Your task to perform on an android device: add a label to a message in the gmail app Image 0: 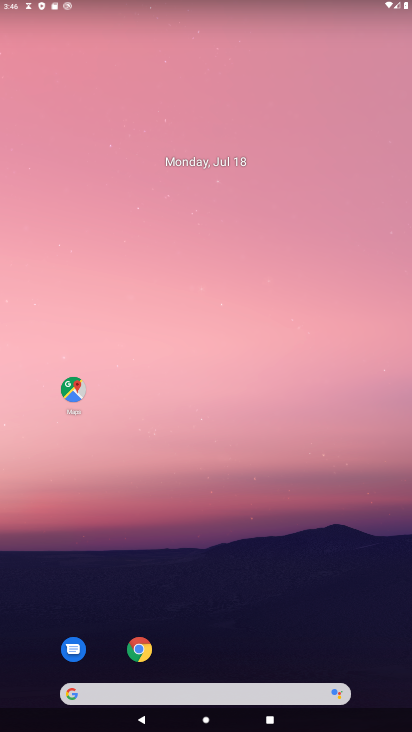
Step 0: press home button
Your task to perform on an android device: add a label to a message in the gmail app Image 1: 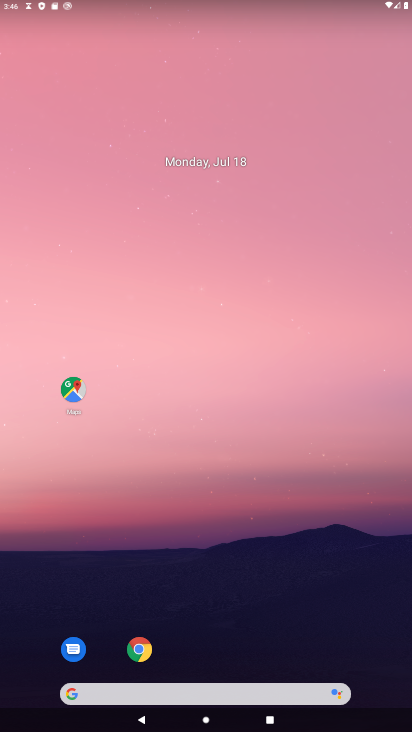
Step 1: drag from (276, 519) to (274, 109)
Your task to perform on an android device: add a label to a message in the gmail app Image 2: 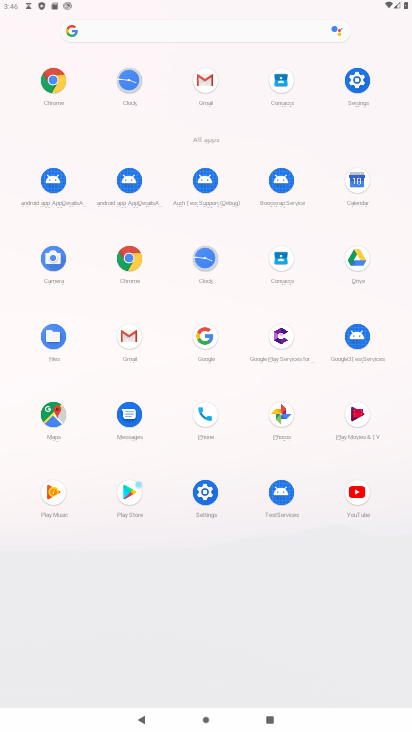
Step 2: click (216, 82)
Your task to perform on an android device: add a label to a message in the gmail app Image 3: 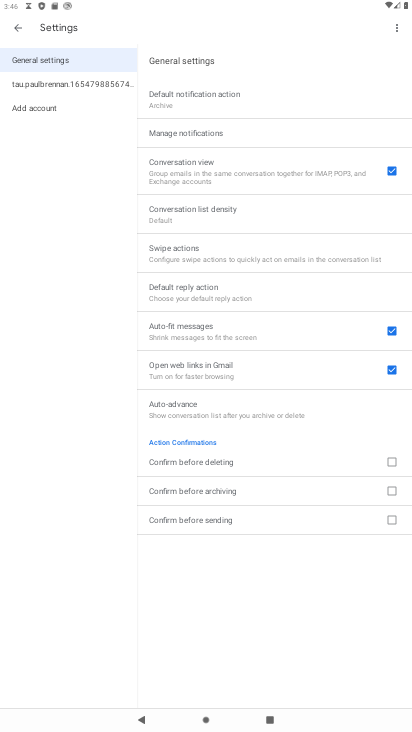
Step 3: click (17, 27)
Your task to perform on an android device: add a label to a message in the gmail app Image 4: 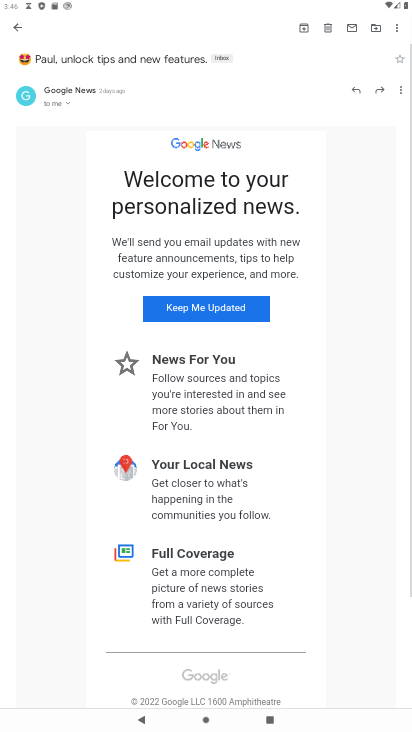
Step 4: click (21, 30)
Your task to perform on an android device: add a label to a message in the gmail app Image 5: 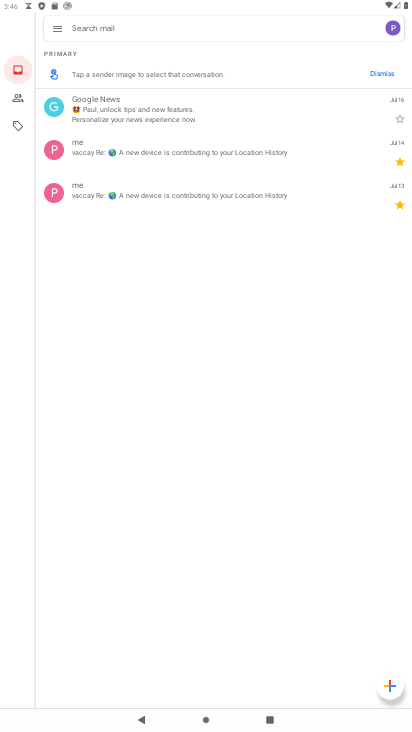
Step 5: click (51, 26)
Your task to perform on an android device: add a label to a message in the gmail app Image 6: 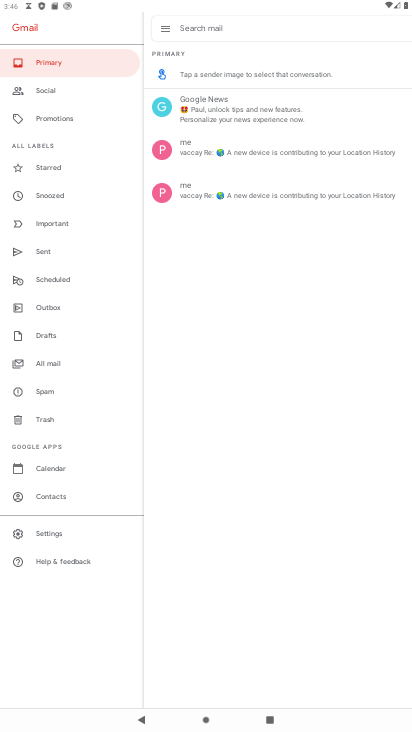
Step 6: click (46, 359)
Your task to perform on an android device: add a label to a message in the gmail app Image 7: 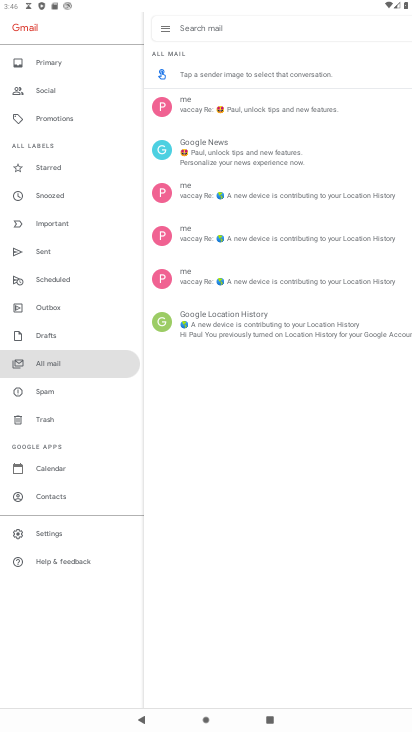
Step 7: click (252, 101)
Your task to perform on an android device: add a label to a message in the gmail app Image 8: 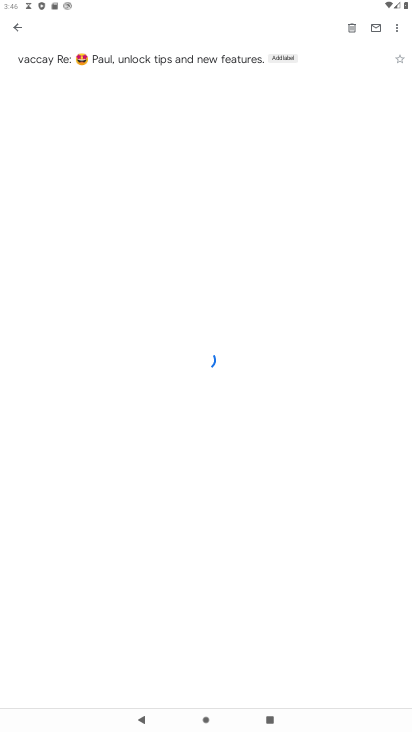
Step 8: click (400, 25)
Your task to perform on an android device: add a label to a message in the gmail app Image 9: 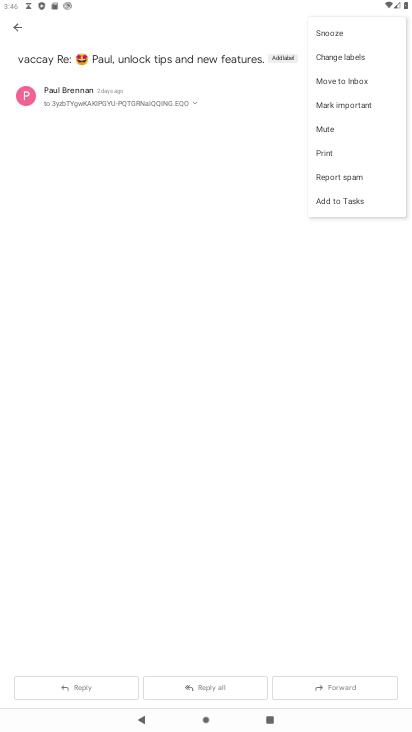
Step 9: click (342, 58)
Your task to perform on an android device: add a label to a message in the gmail app Image 10: 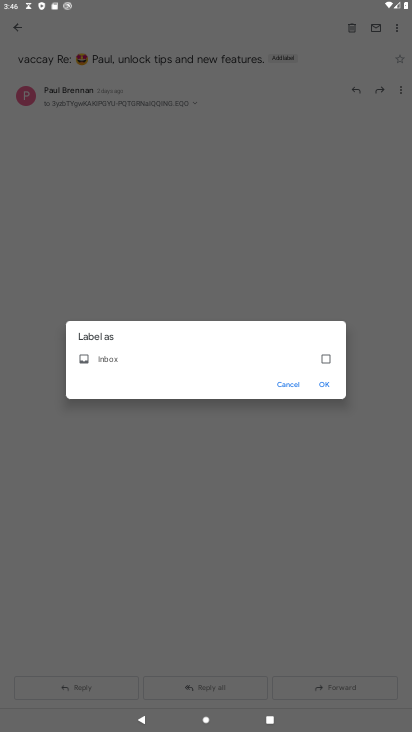
Step 10: click (330, 363)
Your task to perform on an android device: add a label to a message in the gmail app Image 11: 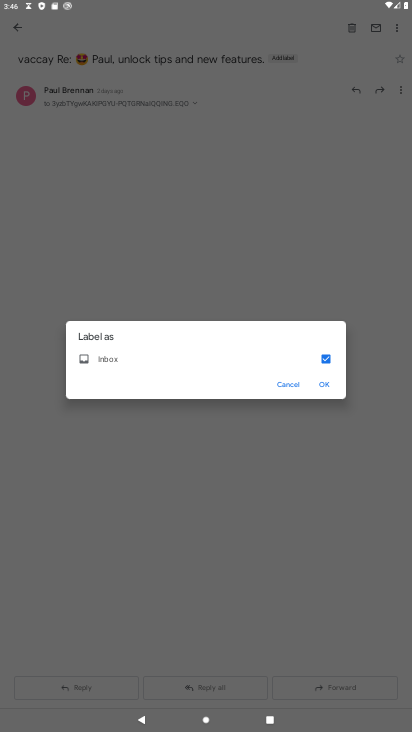
Step 11: click (324, 385)
Your task to perform on an android device: add a label to a message in the gmail app Image 12: 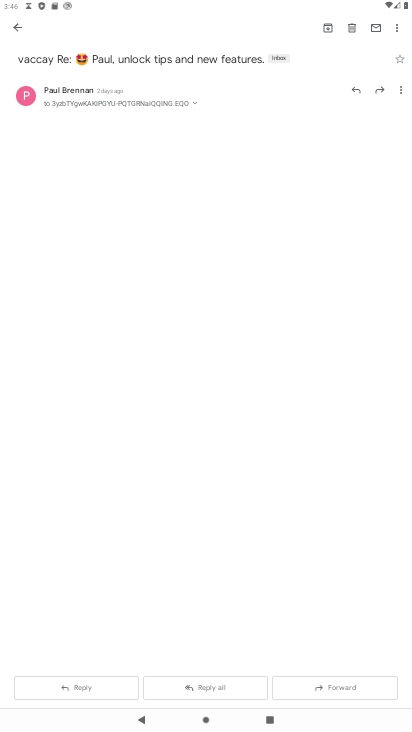
Step 12: task complete